Your task to perform on an android device: What is the news today? Image 0: 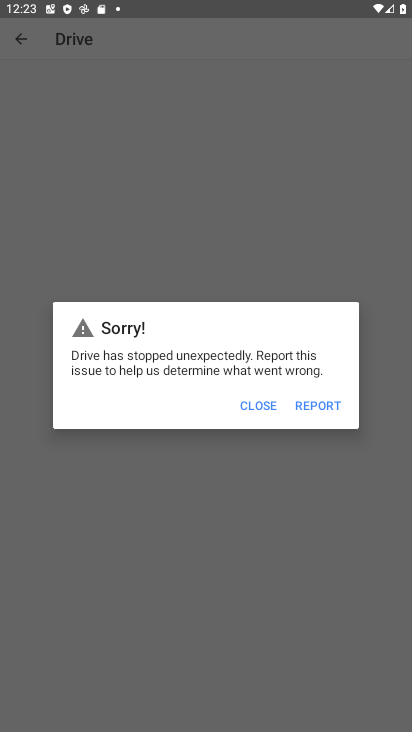
Step 0: press home button
Your task to perform on an android device: What is the news today? Image 1: 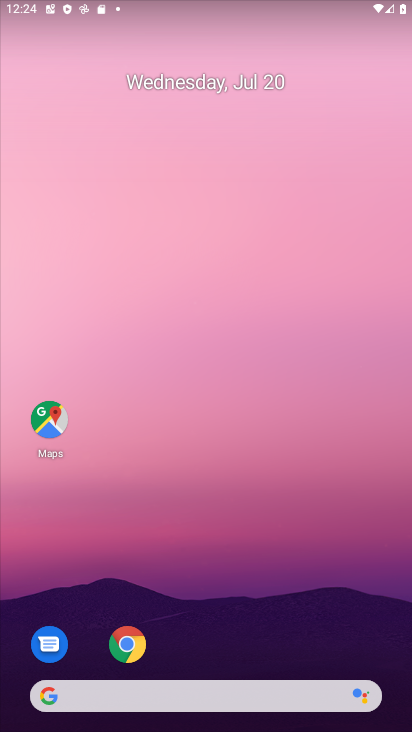
Step 1: click (132, 657)
Your task to perform on an android device: What is the news today? Image 2: 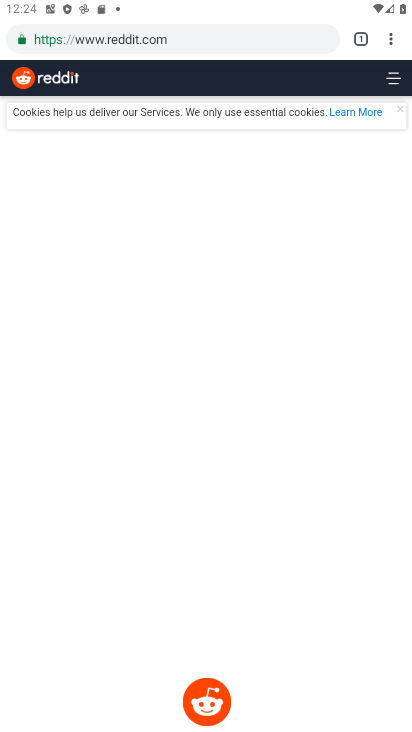
Step 2: click (262, 36)
Your task to perform on an android device: What is the news today? Image 3: 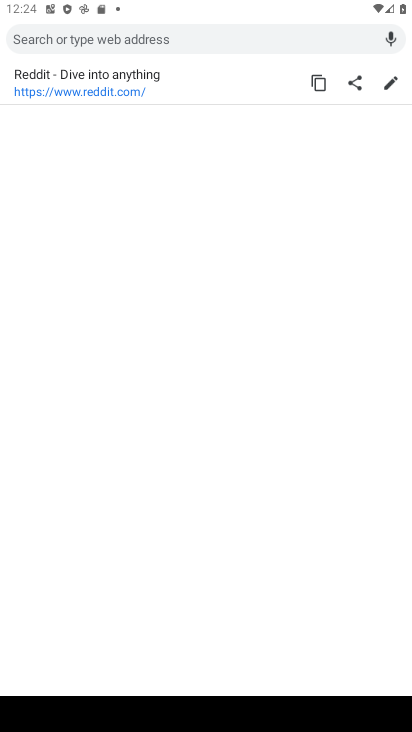
Step 3: type "What is the news today?"
Your task to perform on an android device: What is the news today? Image 4: 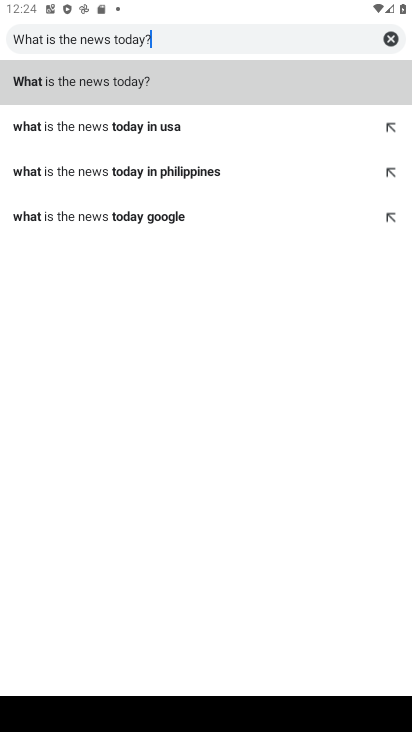
Step 4: type ""
Your task to perform on an android device: What is the news today? Image 5: 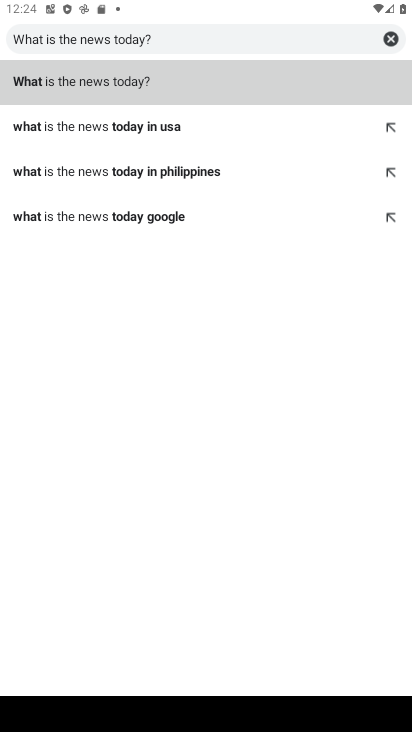
Step 5: click (81, 79)
Your task to perform on an android device: What is the news today? Image 6: 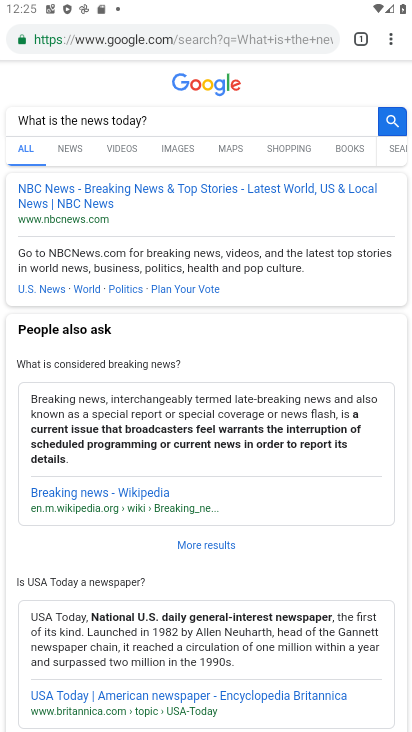
Step 6: task complete